Your task to perform on an android device: Open Wikipedia Image 0: 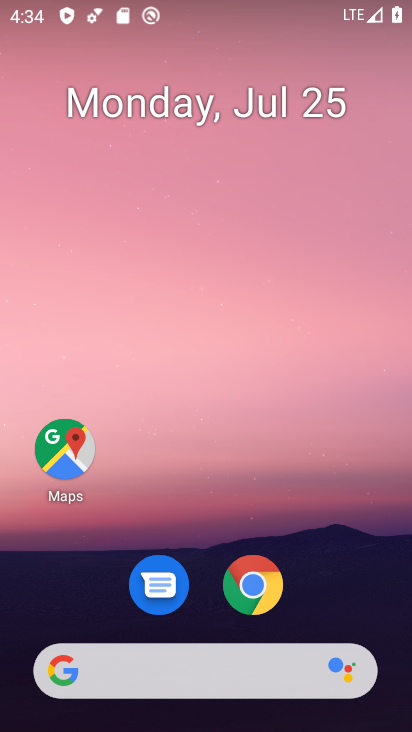
Step 0: click (228, 679)
Your task to perform on an android device: Open Wikipedia Image 1: 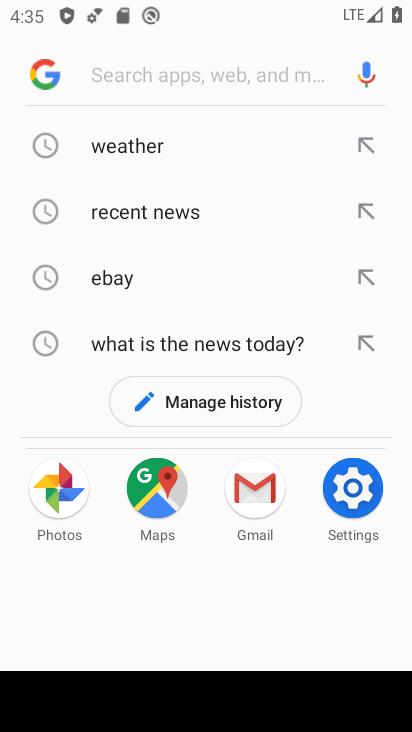
Step 1: type "wikipedia"
Your task to perform on an android device: Open Wikipedia Image 2: 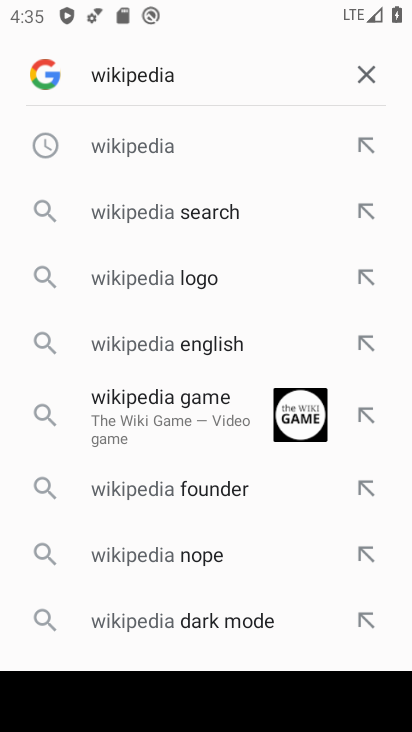
Step 2: click (144, 143)
Your task to perform on an android device: Open Wikipedia Image 3: 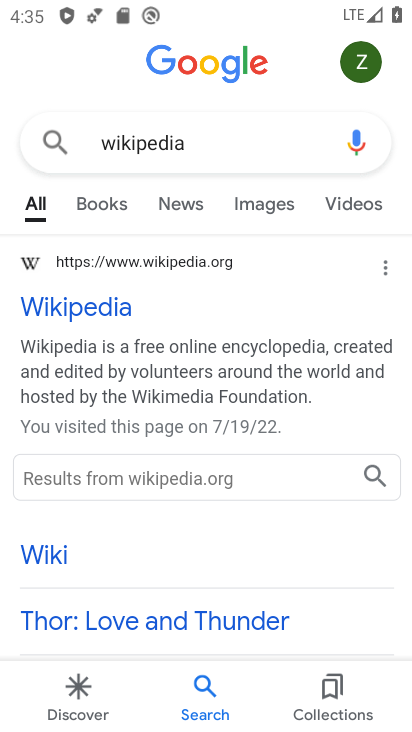
Step 3: click (67, 314)
Your task to perform on an android device: Open Wikipedia Image 4: 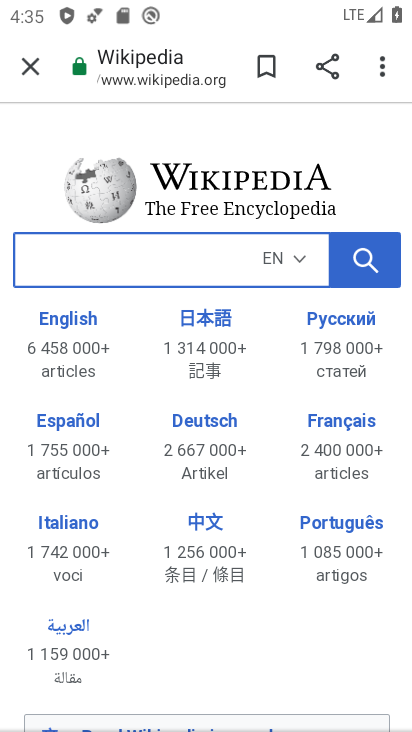
Step 4: task complete